Your task to perform on an android device: Search for vegetarian restaurants on Maps Image 0: 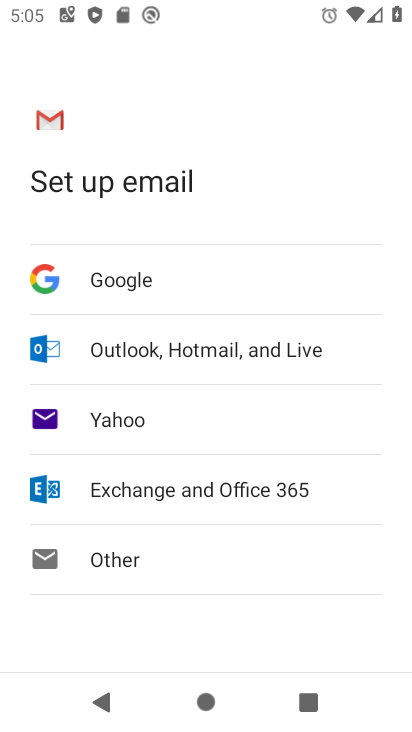
Step 0: press home button
Your task to perform on an android device: Search for vegetarian restaurants on Maps Image 1: 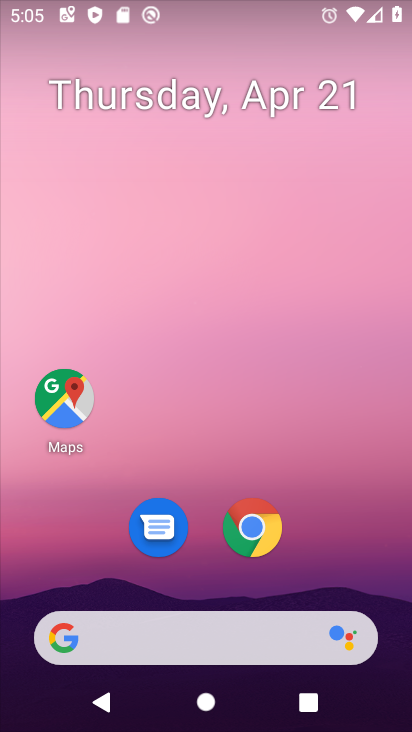
Step 1: drag from (359, 344) to (352, 201)
Your task to perform on an android device: Search for vegetarian restaurants on Maps Image 2: 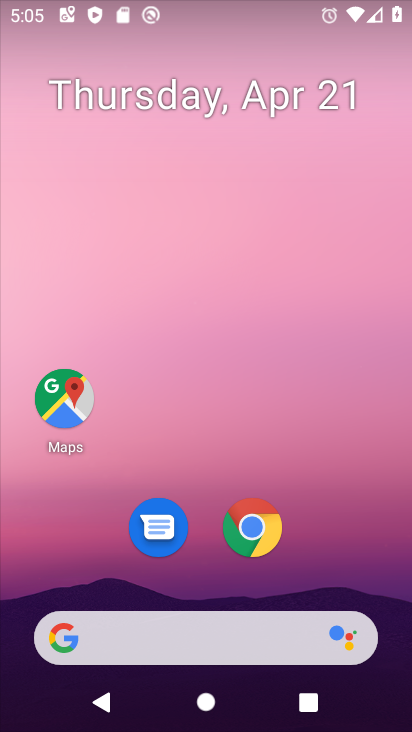
Step 2: click (328, 132)
Your task to perform on an android device: Search for vegetarian restaurants on Maps Image 3: 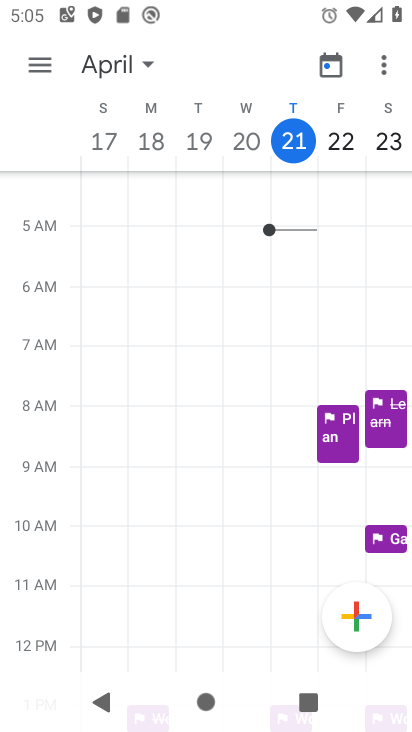
Step 3: drag from (387, 576) to (325, 182)
Your task to perform on an android device: Search for vegetarian restaurants on Maps Image 4: 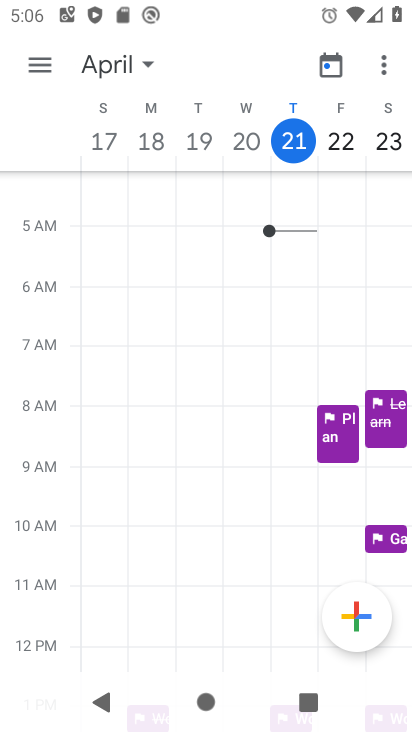
Step 4: press home button
Your task to perform on an android device: Search for vegetarian restaurants on Maps Image 5: 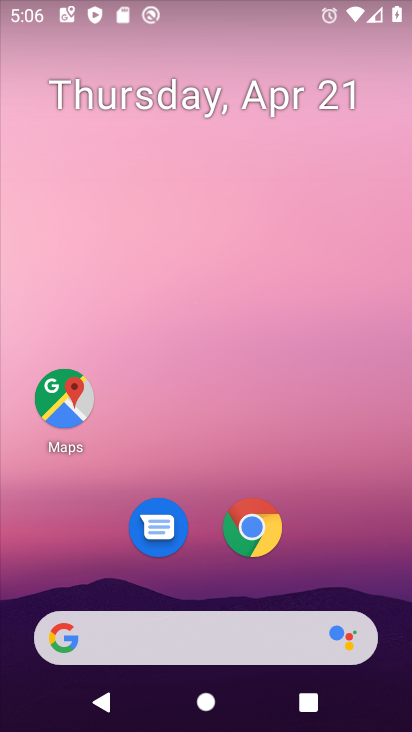
Step 5: click (65, 399)
Your task to perform on an android device: Search for vegetarian restaurants on Maps Image 6: 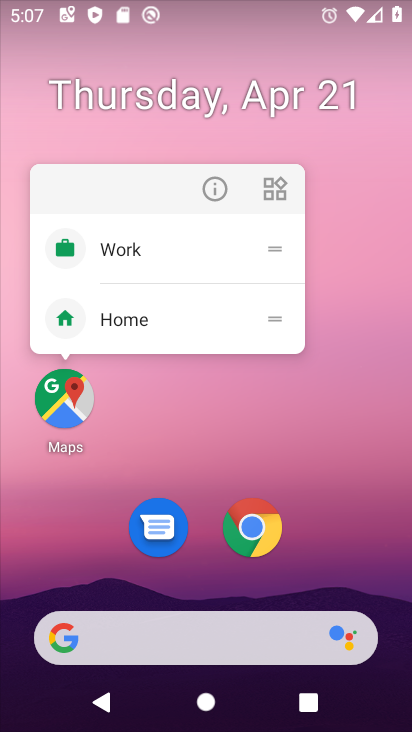
Step 6: click (349, 464)
Your task to perform on an android device: Search for vegetarian restaurants on Maps Image 7: 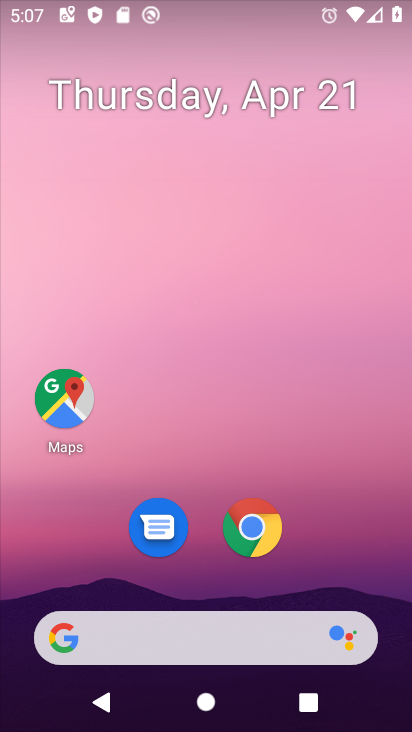
Step 7: click (46, 397)
Your task to perform on an android device: Search for vegetarian restaurants on Maps Image 8: 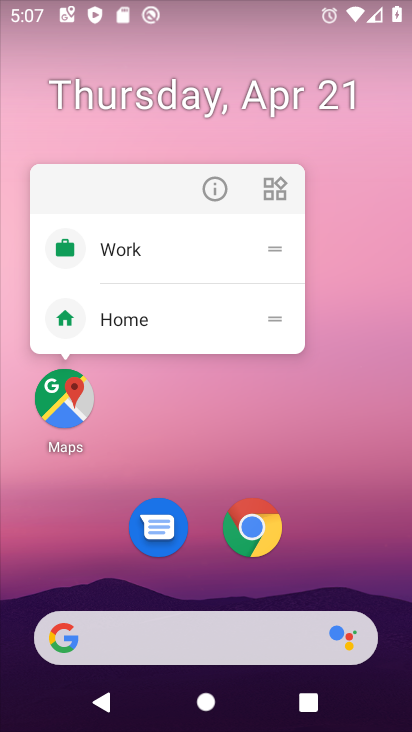
Step 8: click (70, 397)
Your task to perform on an android device: Search for vegetarian restaurants on Maps Image 9: 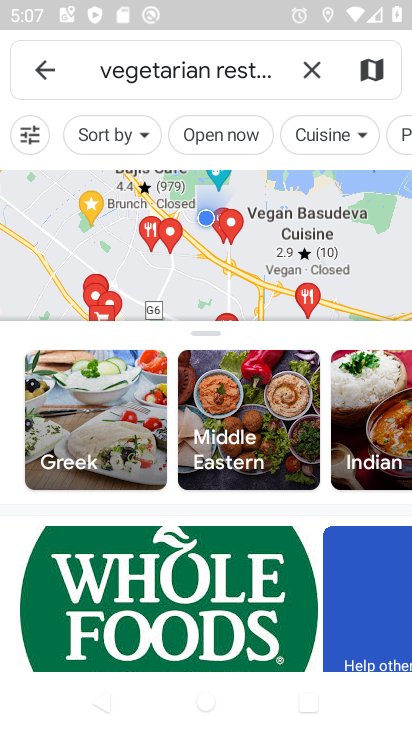
Step 9: task complete